Your task to perform on an android device: search for starred emails in the gmail app Image 0: 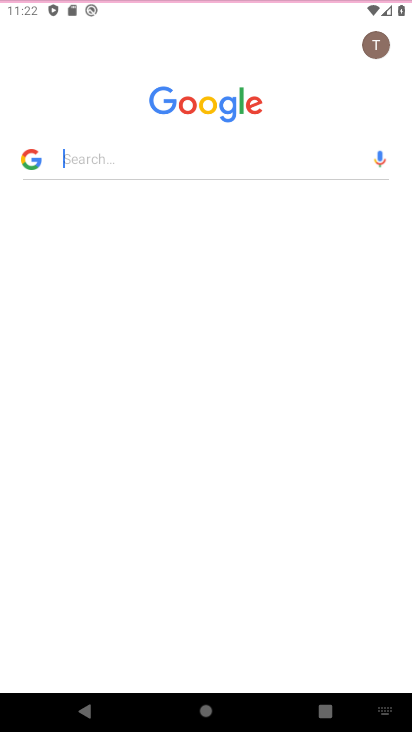
Step 0: drag from (228, 543) to (336, 1)
Your task to perform on an android device: search for starred emails in the gmail app Image 1: 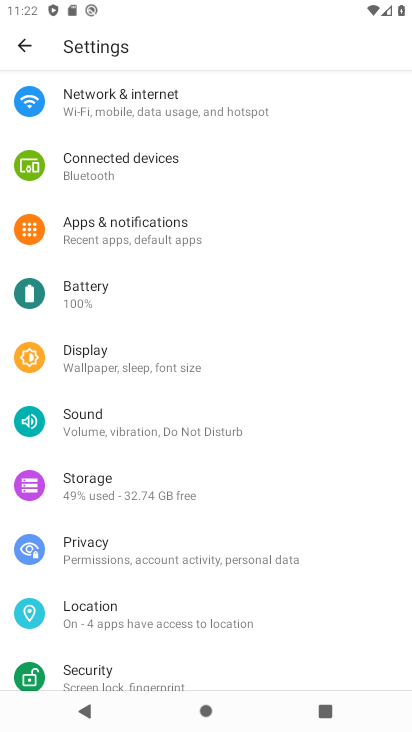
Step 1: drag from (238, 456) to (254, 262)
Your task to perform on an android device: search for starred emails in the gmail app Image 2: 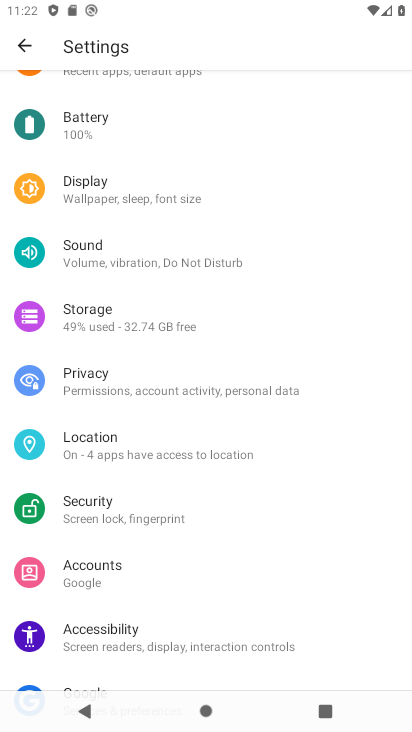
Step 2: press home button
Your task to perform on an android device: search for starred emails in the gmail app Image 3: 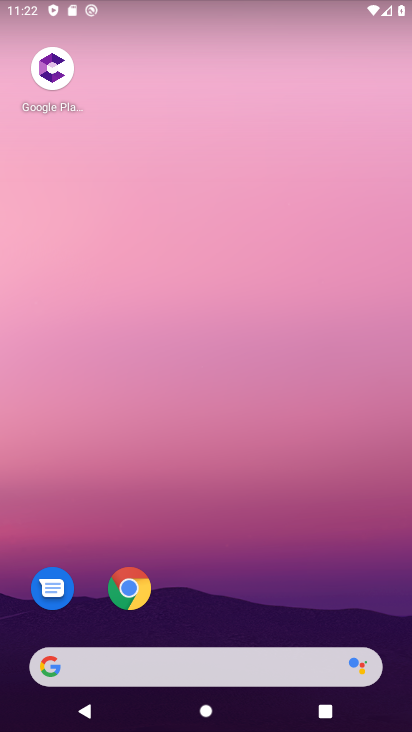
Step 3: drag from (215, 454) to (215, 112)
Your task to perform on an android device: search for starred emails in the gmail app Image 4: 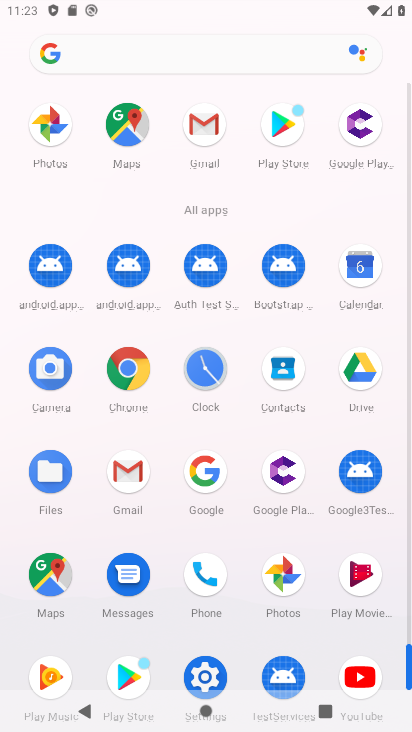
Step 4: click (134, 481)
Your task to perform on an android device: search for starred emails in the gmail app Image 5: 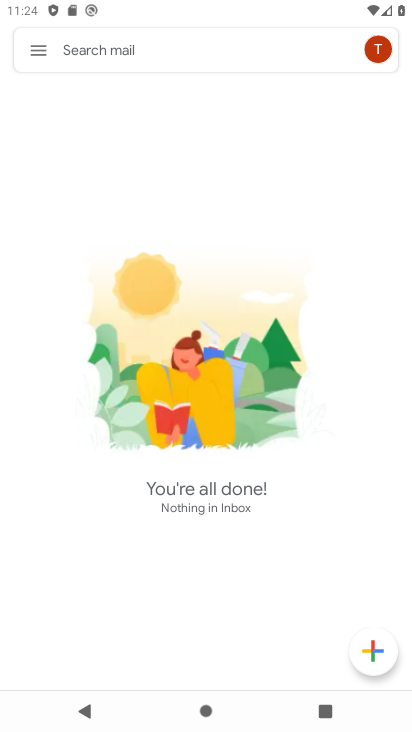
Step 5: click (43, 55)
Your task to perform on an android device: search for starred emails in the gmail app Image 6: 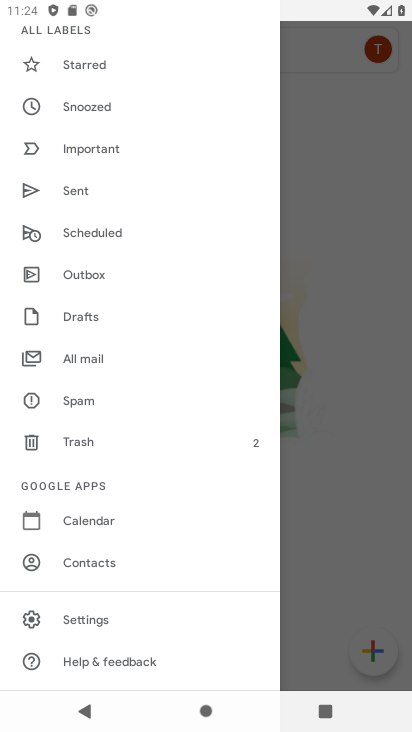
Step 6: click (84, 40)
Your task to perform on an android device: search for starred emails in the gmail app Image 7: 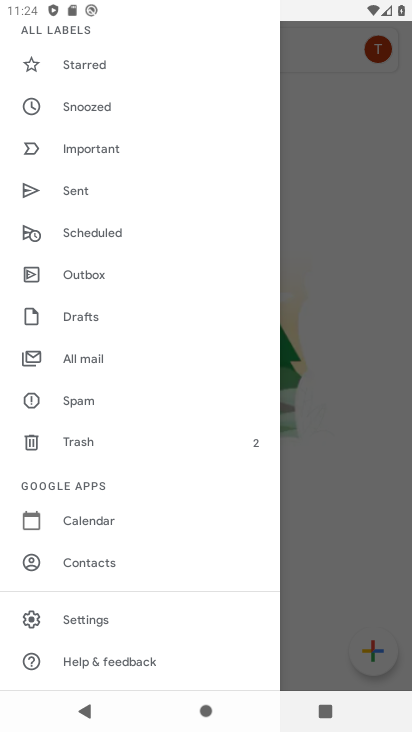
Step 7: click (115, 68)
Your task to perform on an android device: search for starred emails in the gmail app Image 8: 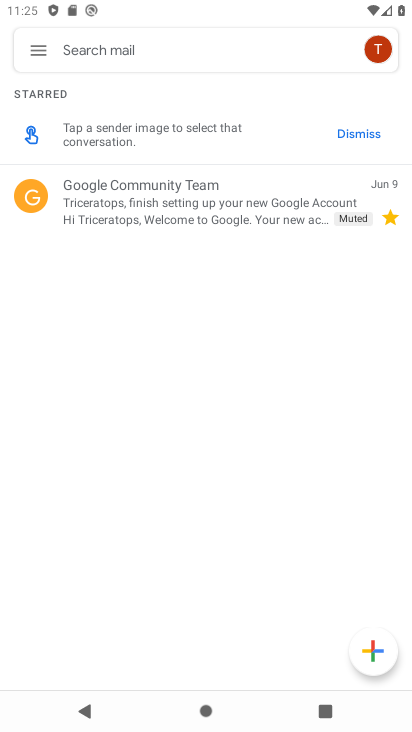
Step 8: task complete